Your task to perform on an android device: check android version Image 0: 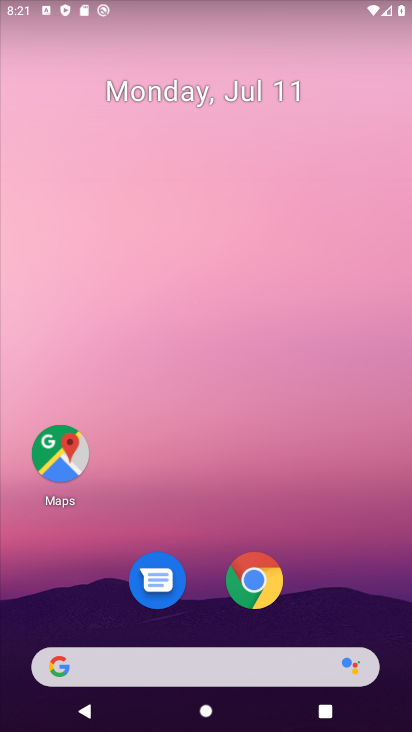
Step 0: drag from (403, 645) to (171, 27)
Your task to perform on an android device: check android version Image 1: 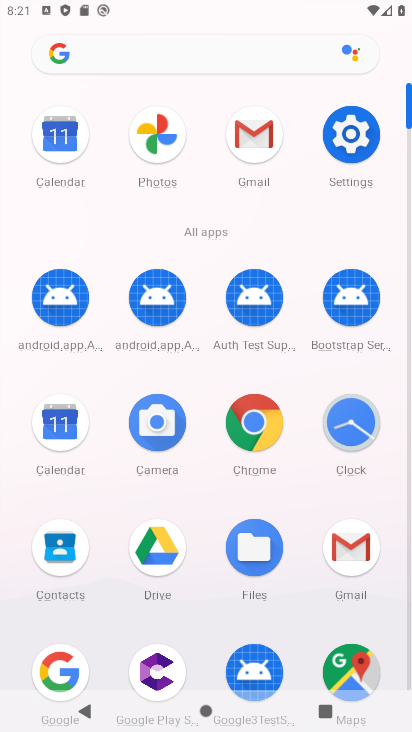
Step 1: click (362, 139)
Your task to perform on an android device: check android version Image 2: 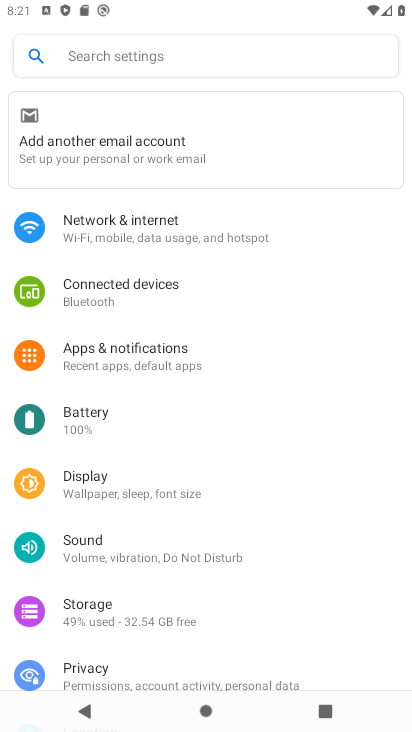
Step 2: drag from (186, 638) to (121, 49)
Your task to perform on an android device: check android version Image 3: 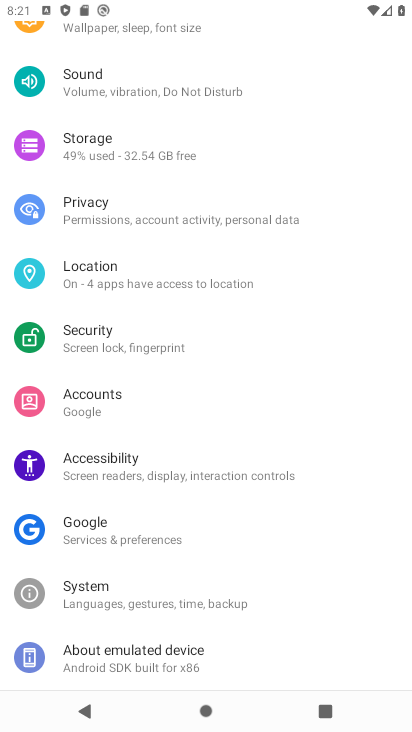
Step 3: click (152, 652)
Your task to perform on an android device: check android version Image 4: 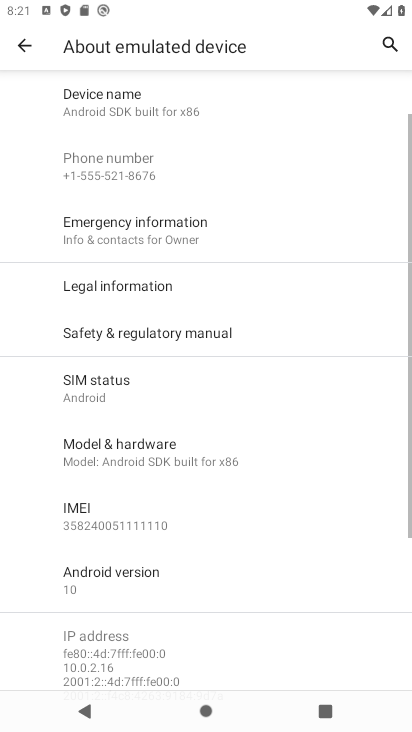
Step 4: click (162, 597)
Your task to perform on an android device: check android version Image 5: 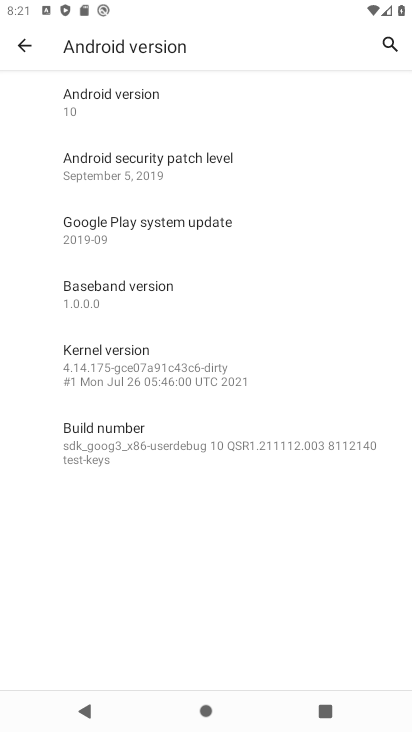
Step 5: task complete